Your task to perform on an android device: What's on my calendar today? Image 0: 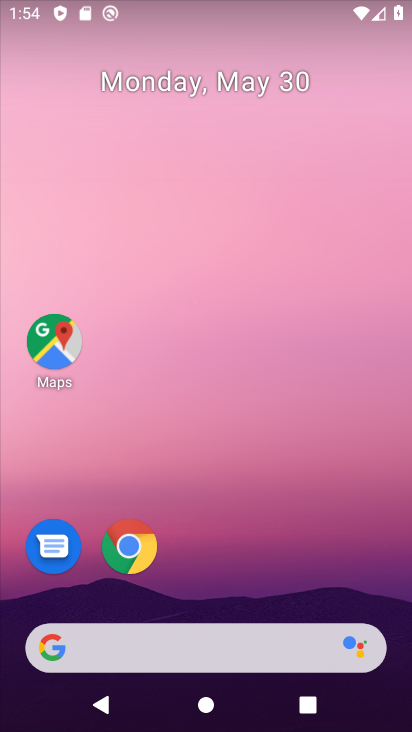
Step 0: drag from (221, 602) to (243, 78)
Your task to perform on an android device: What's on my calendar today? Image 1: 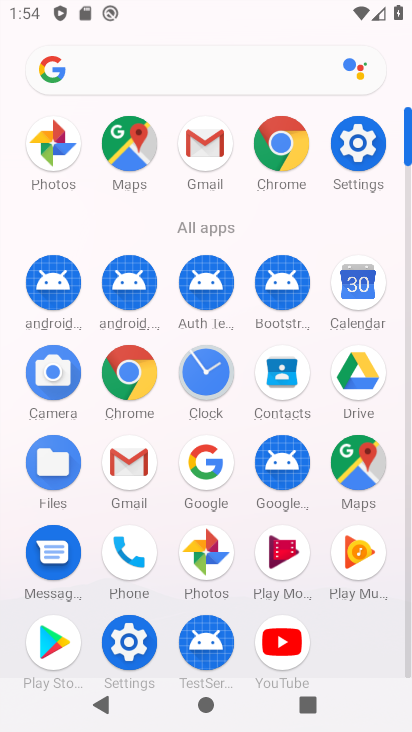
Step 1: click (351, 278)
Your task to perform on an android device: What's on my calendar today? Image 2: 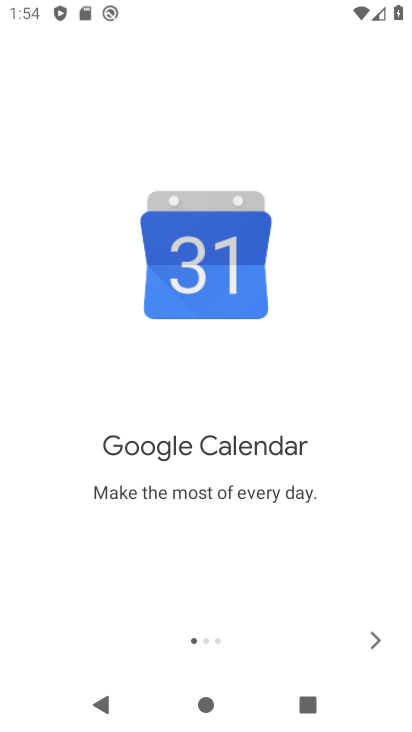
Step 2: click (376, 635)
Your task to perform on an android device: What's on my calendar today? Image 3: 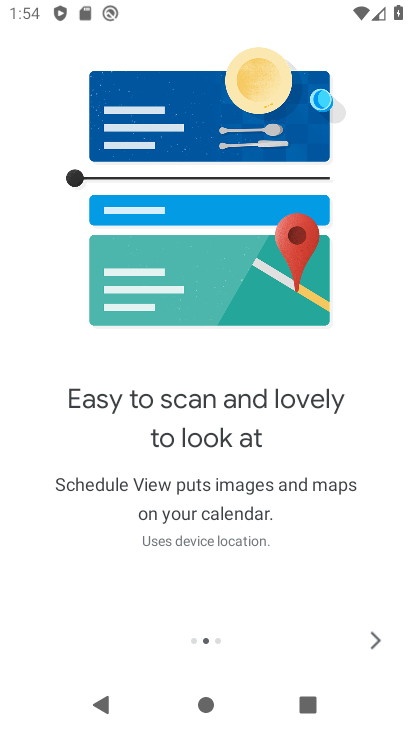
Step 3: click (377, 630)
Your task to perform on an android device: What's on my calendar today? Image 4: 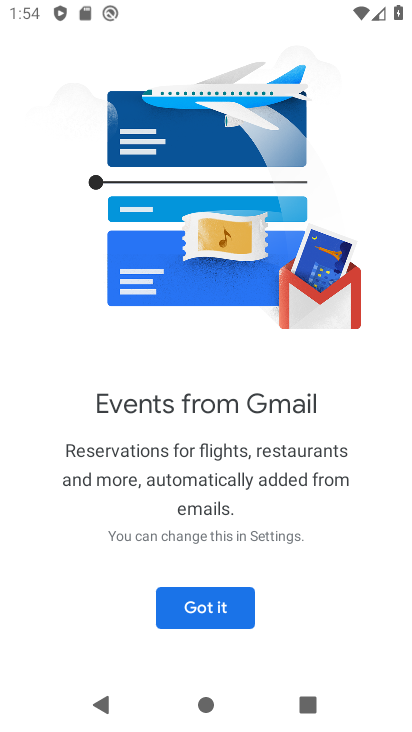
Step 4: click (203, 607)
Your task to perform on an android device: What's on my calendar today? Image 5: 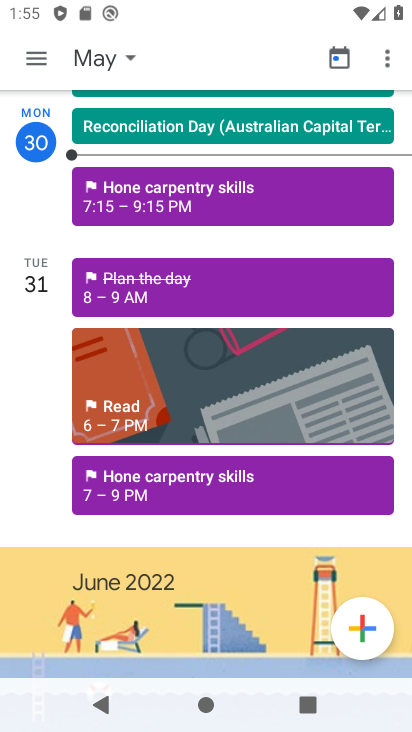
Step 5: click (32, 178)
Your task to perform on an android device: What's on my calendar today? Image 6: 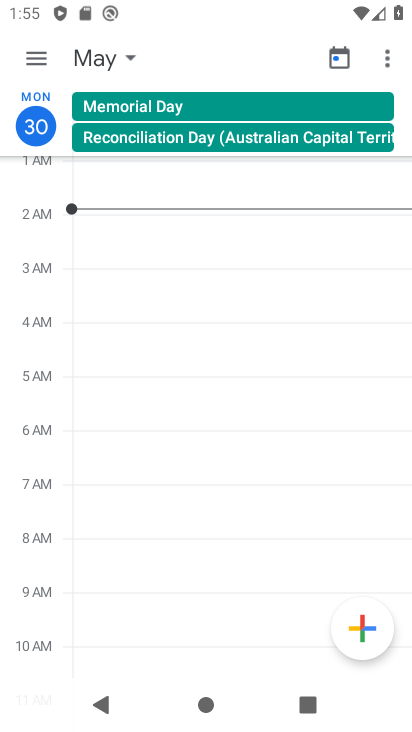
Step 6: drag from (45, 573) to (56, 150)
Your task to perform on an android device: What's on my calendar today? Image 7: 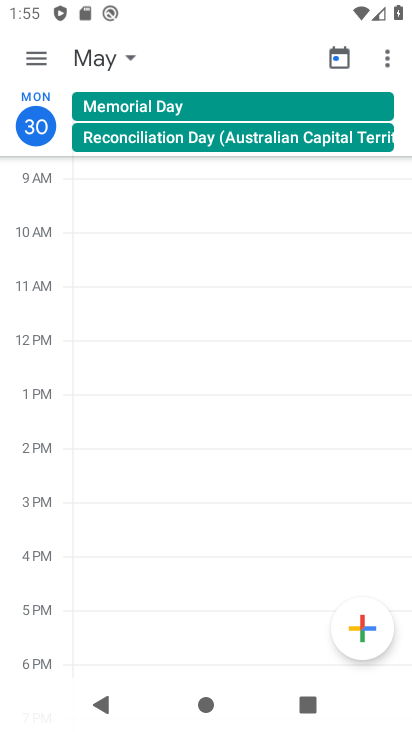
Step 7: click (48, 634)
Your task to perform on an android device: What's on my calendar today? Image 8: 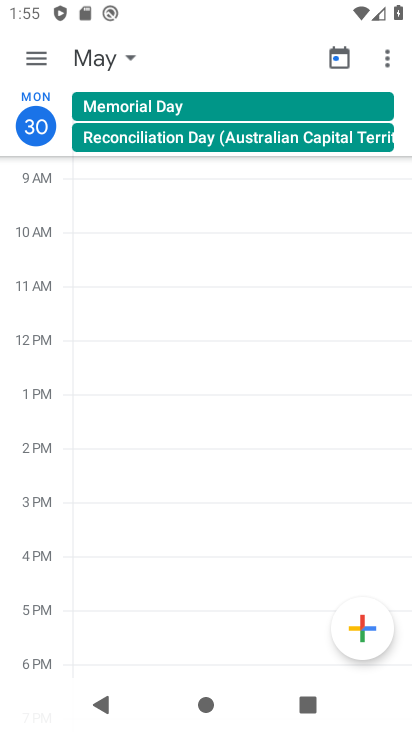
Step 8: task complete